Your task to perform on an android device: turn on showing notifications on the lock screen Image 0: 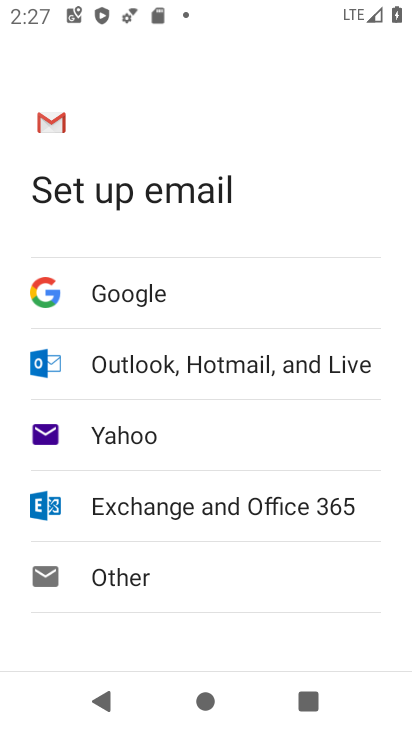
Step 0: press home button
Your task to perform on an android device: turn on showing notifications on the lock screen Image 1: 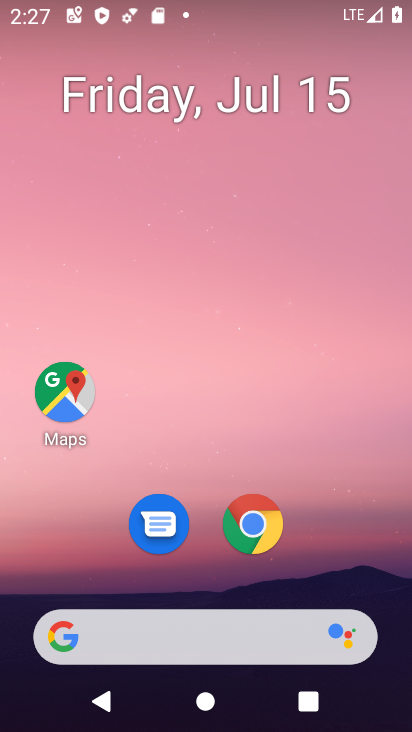
Step 1: drag from (213, 649) to (263, 300)
Your task to perform on an android device: turn on showing notifications on the lock screen Image 2: 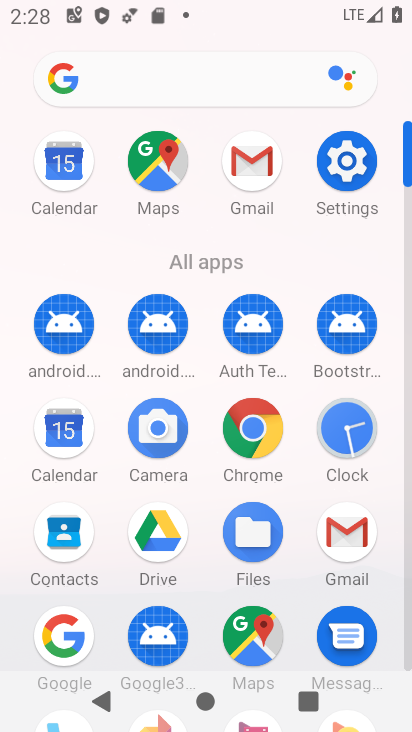
Step 2: click (349, 168)
Your task to perform on an android device: turn on showing notifications on the lock screen Image 3: 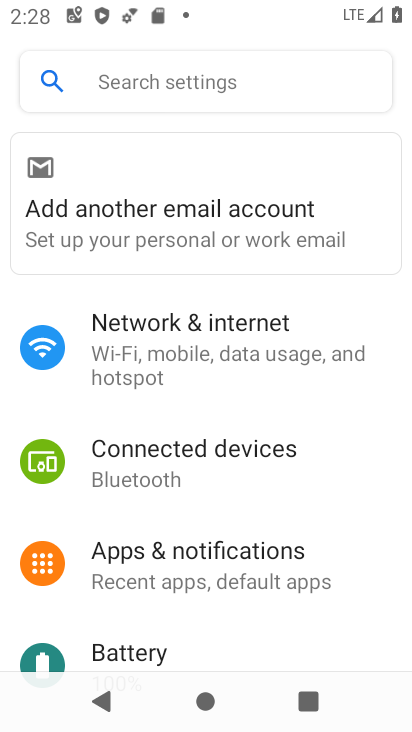
Step 3: click (251, 545)
Your task to perform on an android device: turn on showing notifications on the lock screen Image 4: 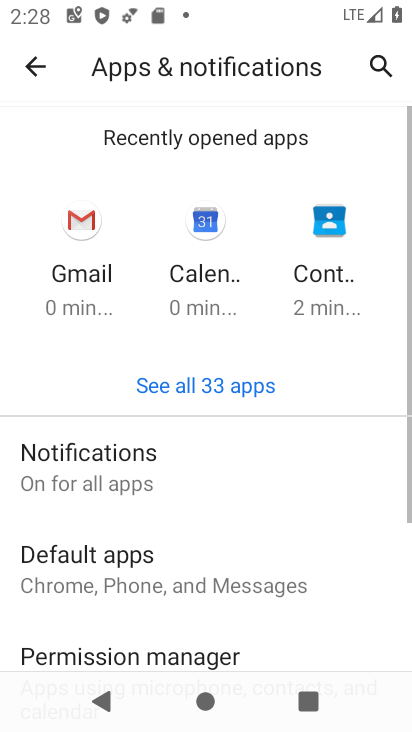
Step 4: drag from (258, 536) to (353, 164)
Your task to perform on an android device: turn on showing notifications on the lock screen Image 5: 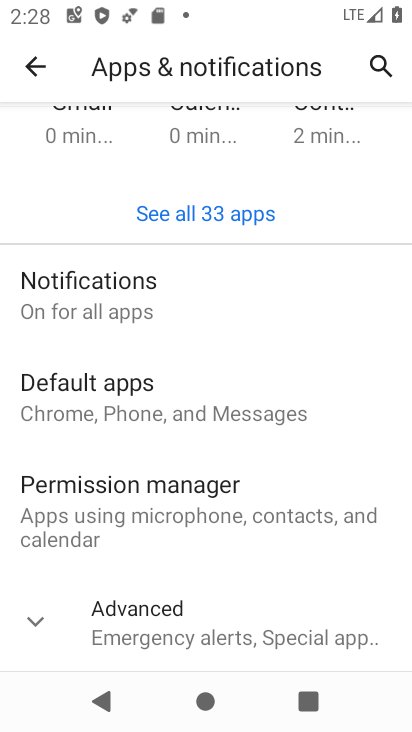
Step 5: click (103, 305)
Your task to perform on an android device: turn on showing notifications on the lock screen Image 6: 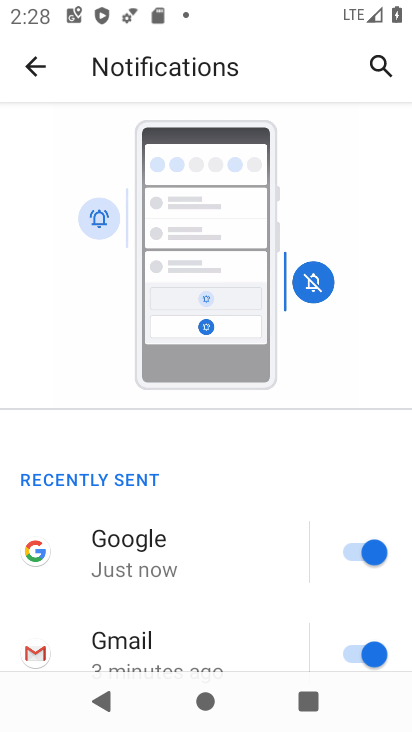
Step 6: drag from (226, 567) to (319, 176)
Your task to perform on an android device: turn on showing notifications on the lock screen Image 7: 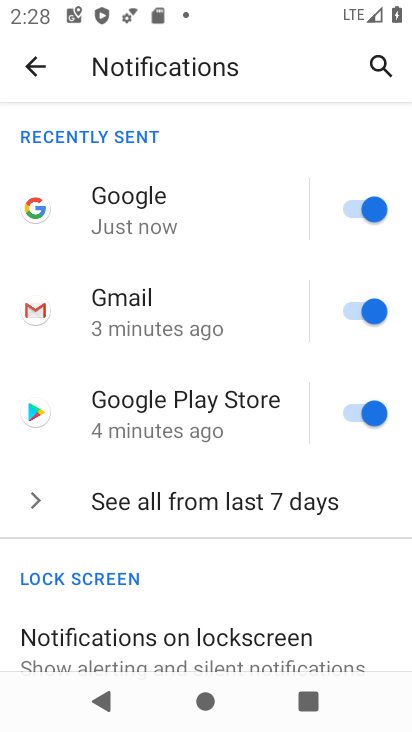
Step 7: drag from (235, 593) to (278, 211)
Your task to perform on an android device: turn on showing notifications on the lock screen Image 8: 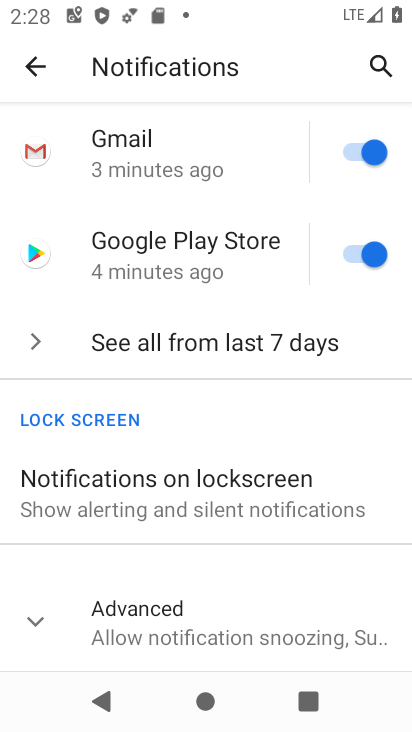
Step 8: click (200, 476)
Your task to perform on an android device: turn on showing notifications on the lock screen Image 9: 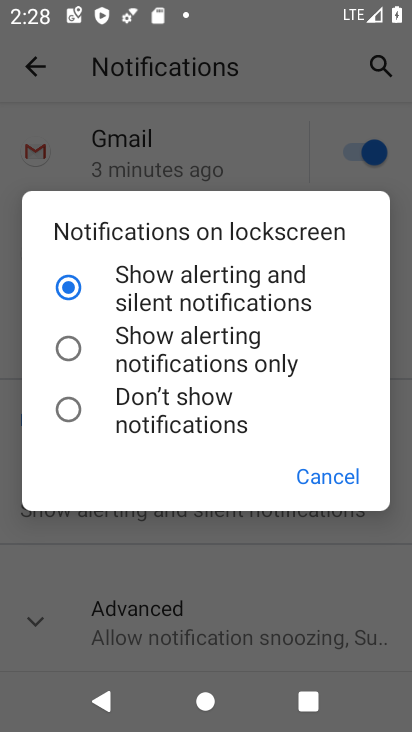
Step 9: task complete